Your task to perform on an android device: Go to Google maps Image 0: 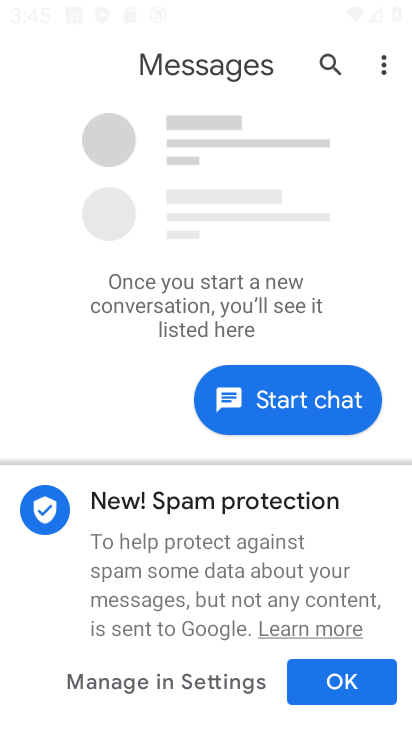
Step 0: press home button
Your task to perform on an android device: Go to Google maps Image 1: 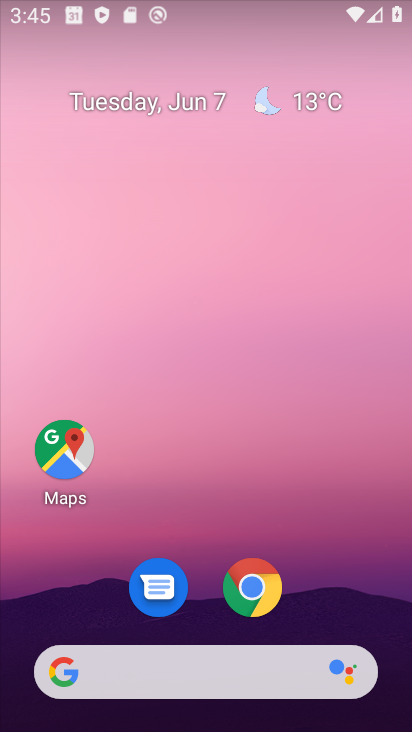
Step 1: drag from (213, 720) to (218, 154)
Your task to perform on an android device: Go to Google maps Image 2: 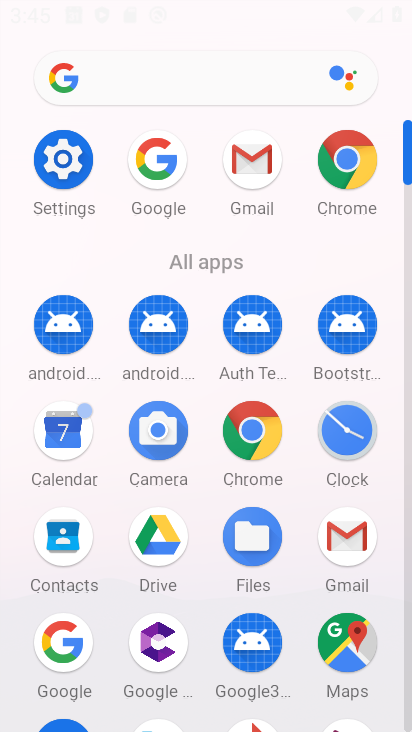
Step 2: click (357, 661)
Your task to perform on an android device: Go to Google maps Image 3: 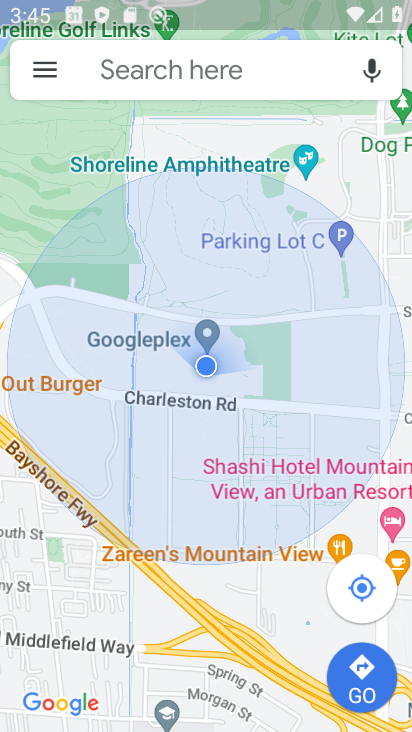
Step 3: task complete